Your task to perform on an android device: star an email in the gmail app Image 0: 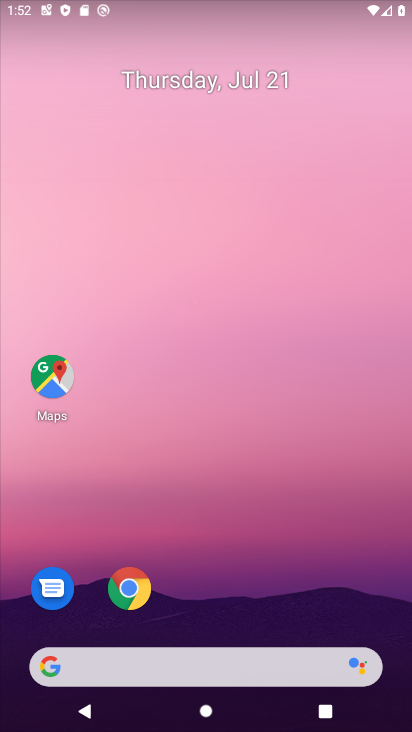
Step 0: drag from (207, 592) to (311, 84)
Your task to perform on an android device: star an email in the gmail app Image 1: 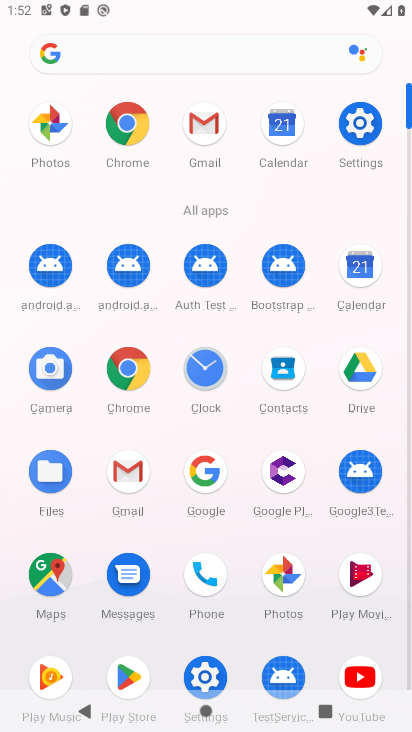
Step 1: click (124, 461)
Your task to perform on an android device: star an email in the gmail app Image 2: 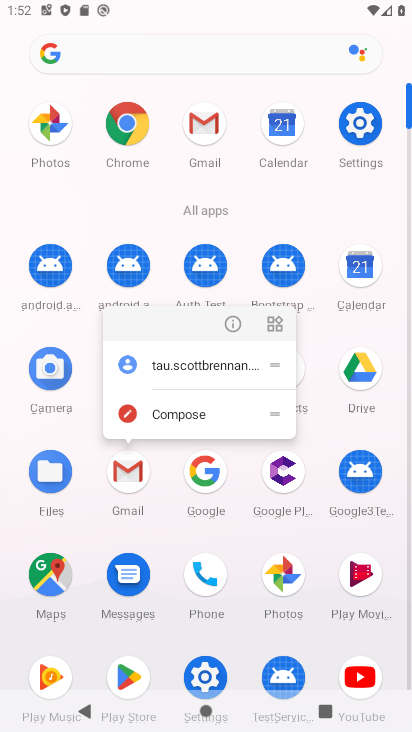
Step 2: click (230, 323)
Your task to perform on an android device: star an email in the gmail app Image 3: 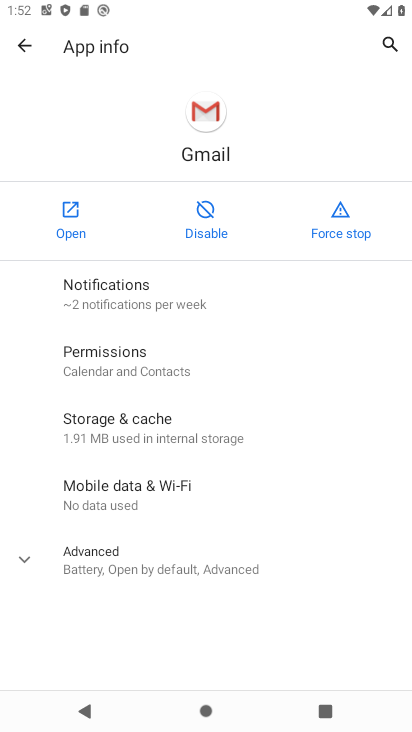
Step 3: click (56, 215)
Your task to perform on an android device: star an email in the gmail app Image 4: 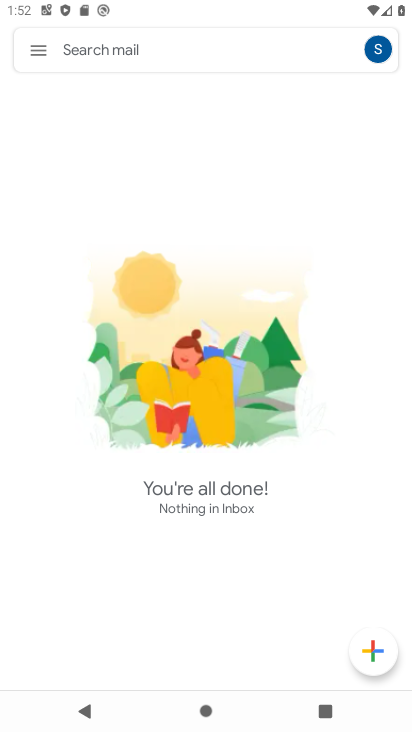
Step 4: drag from (193, 389) to (258, 191)
Your task to perform on an android device: star an email in the gmail app Image 5: 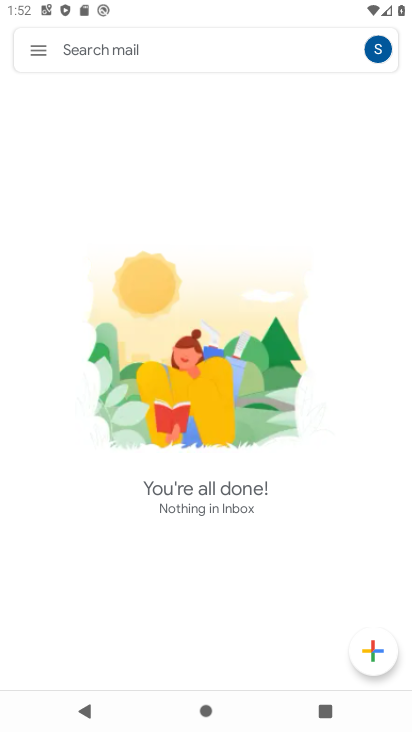
Step 5: click (348, 125)
Your task to perform on an android device: star an email in the gmail app Image 6: 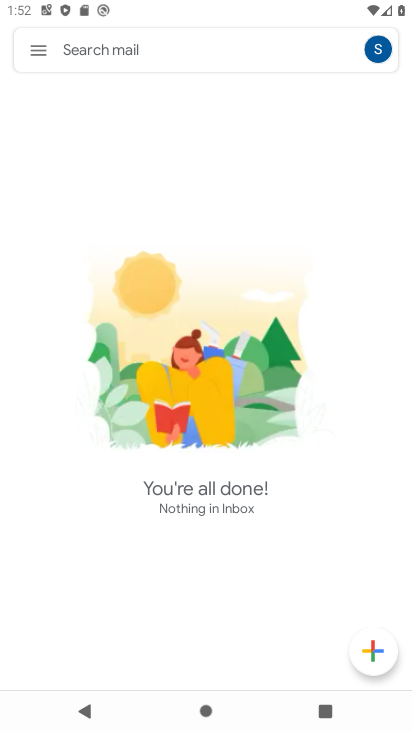
Step 6: drag from (194, 595) to (234, 425)
Your task to perform on an android device: star an email in the gmail app Image 7: 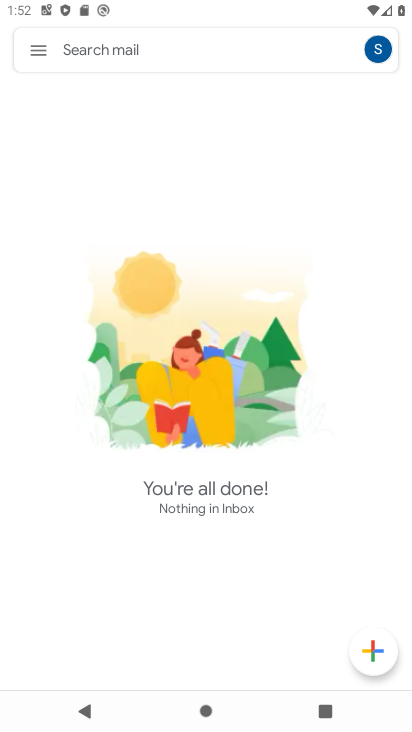
Step 7: click (33, 45)
Your task to perform on an android device: star an email in the gmail app Image 8: 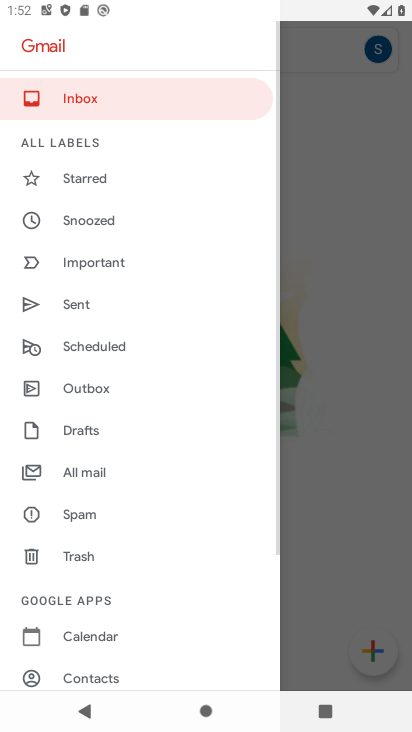
Step 8: click (391, 283)
Your task to perform on an android device: star an email in the gmail app Image 9: 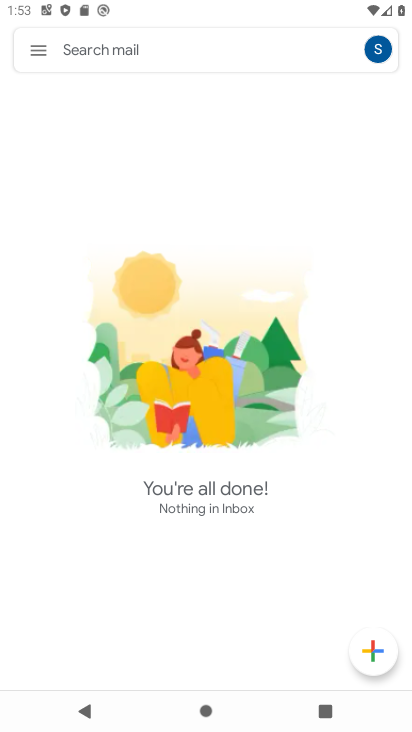
Step 9: click (34, 49)
Your task to perform on an android device: star an email in the gmail app Image 10: 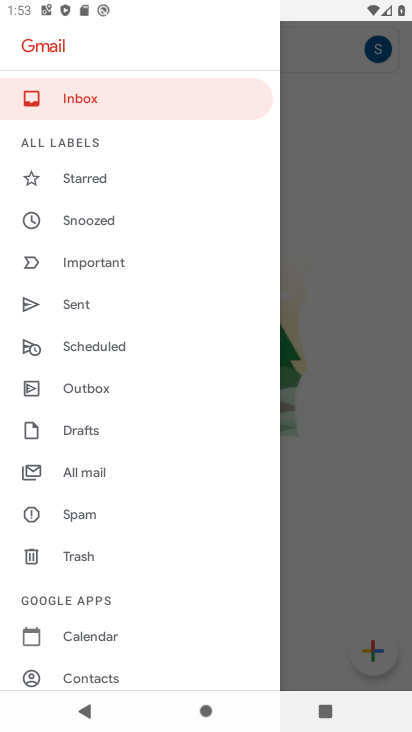
Step 10: click (101, 179)
Your task to perform on an android device: star an email in the gmail app Image 11: 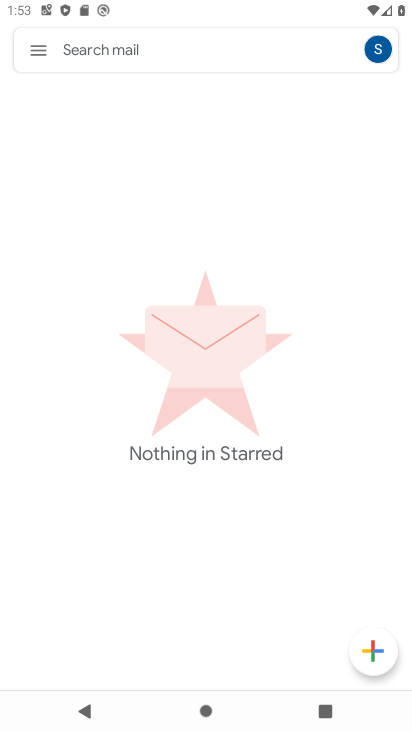
Step 11: click (317, 253)
Your task to perform on an android device: star an email in the gmail app Image 12: 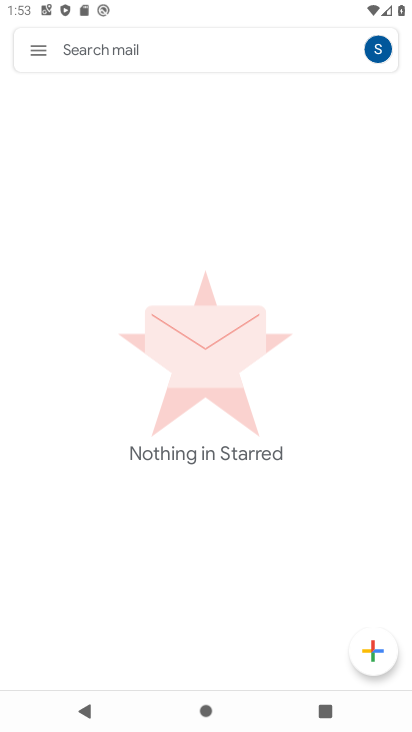
Step 12: task complete